Your task to perform on an android device: Open eBay Image 0: 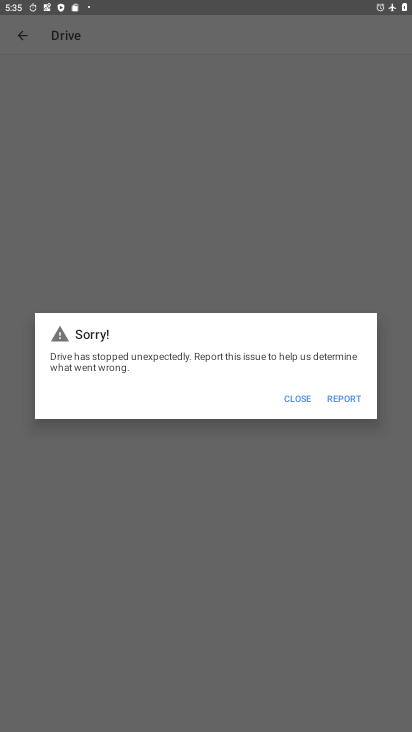
Step 0: press home button
Your task to perform on an android device: Open eBay Image 1: 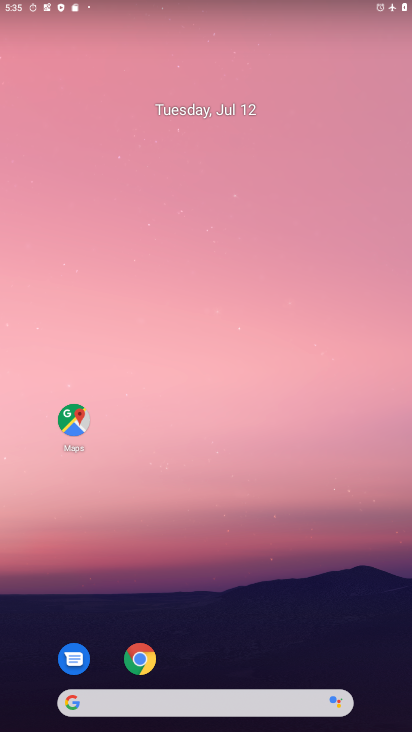
Step 1: click (133, 660)
Your task to perform on an android device: Open eBay Image 2: 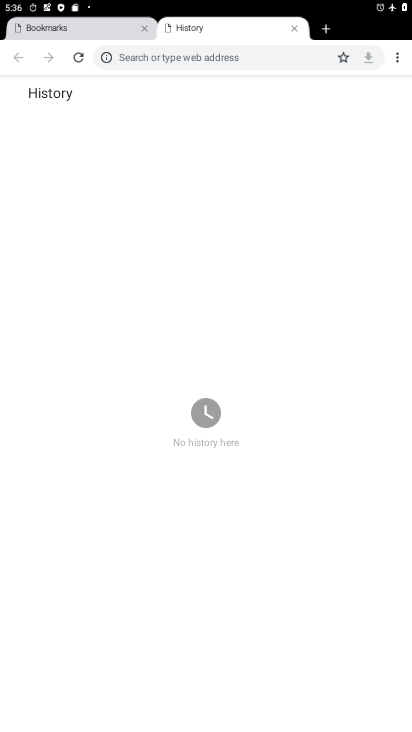
Step 2: click (297, 33)
Your task to perform on an android device: Open eBay Image 3: 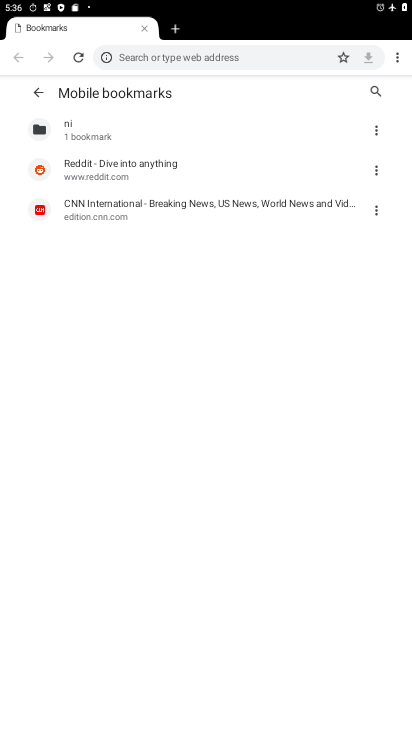
Step 3: click (175, 61)
Your task to perform on an android device: Open eBay Image 4: 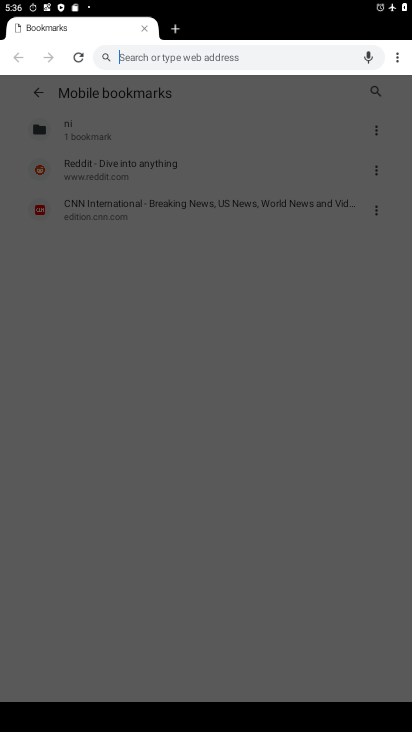
Step 4: type "www.ebay.com"
Your task to perform on an android device: Open eBay Image 5: 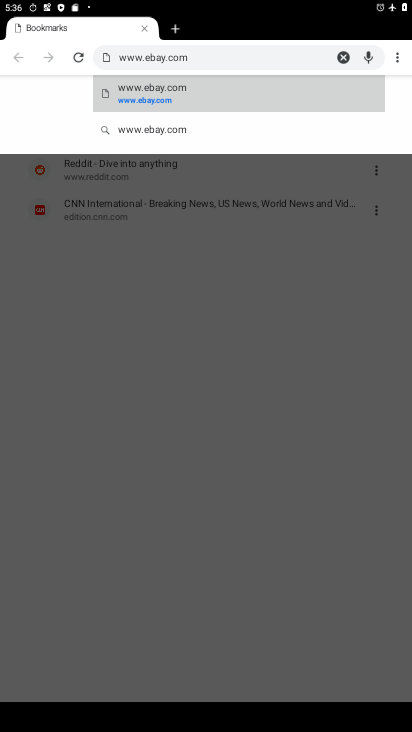
Step 5: click (141, 95)
Your task to perform on an android device: Open eBay Image 6: 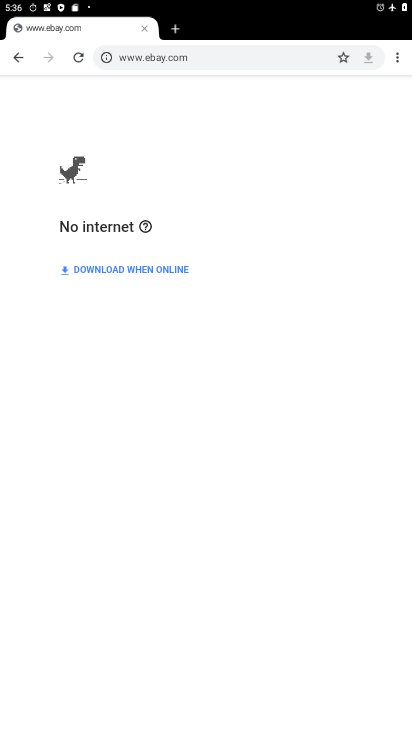
Step 6: press back button
Your task to perform on an android device: Open eBay Image 7: 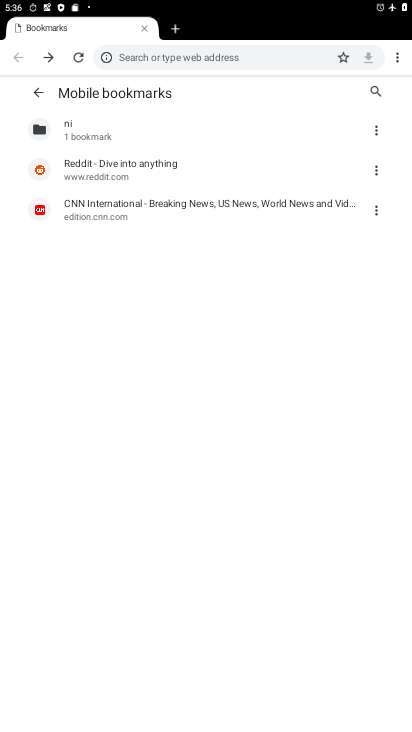
Step 7: press back button
Your task to perform on an android device: Open eBay Image 8: 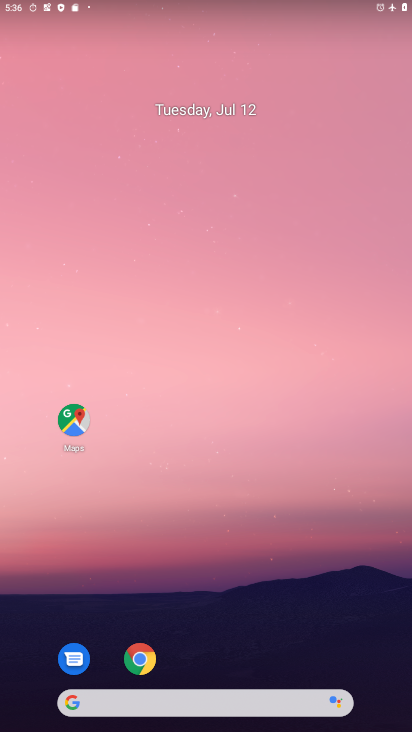
Step 8: drag from (193, 630) to (175, 291)
Your task to perform on an android device: Open eBay Image 9: 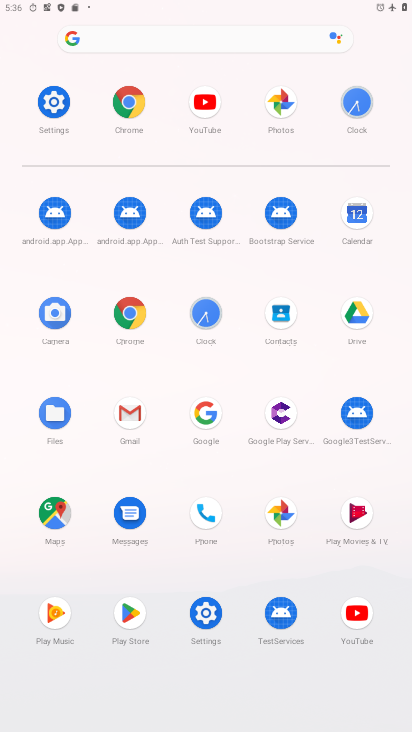
Step 9: click (53, 109)
Your task to perform on an android device: Open eBay Image 10: 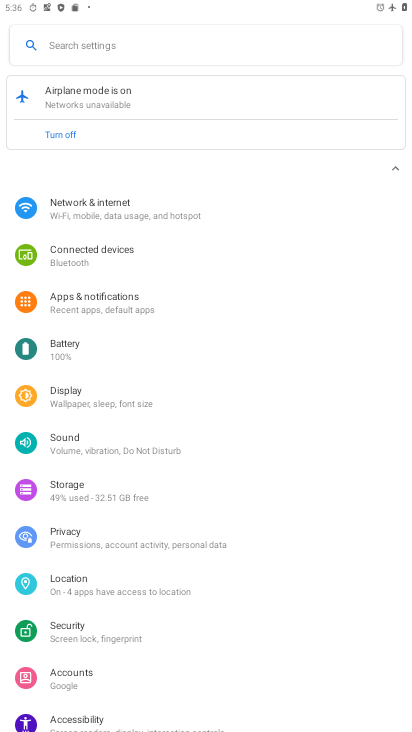
Step 10: click (216, 137)
Your task to perform on an android device: Open eBay Image 11: 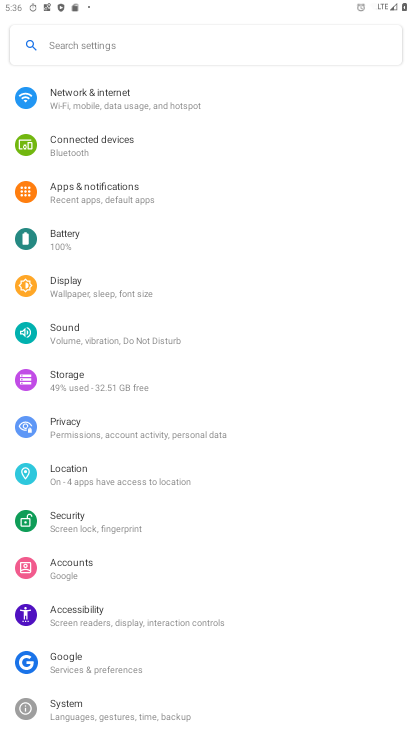
Step 11: press back button
Your task to perform on an android device: Open eBay Image 12: 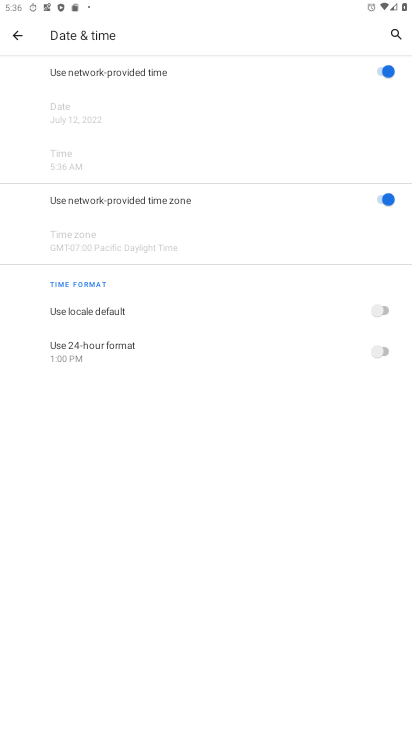
Step 12: press back button
Your task to perform on an android device: Open eBay Image 13: 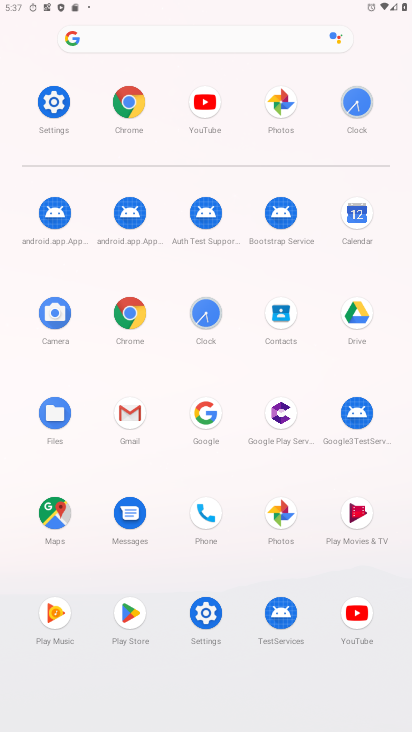
Step 13: click (119, 125)
Your task to perform on an android device: Open eBay Image 14: 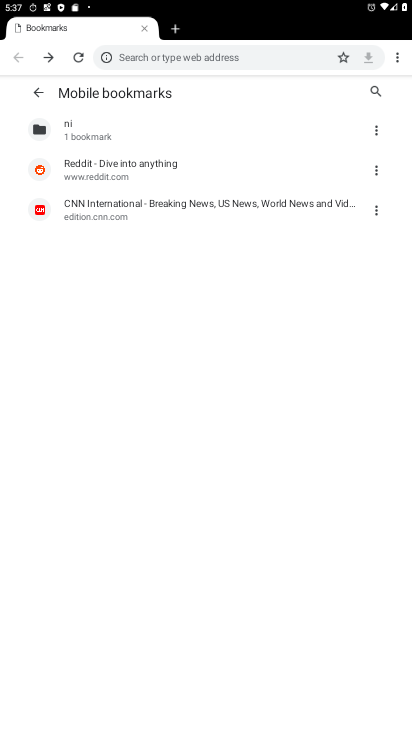
Step 14: click (189, 49)
Your task to perform on an android device: Open eBay Image 15: 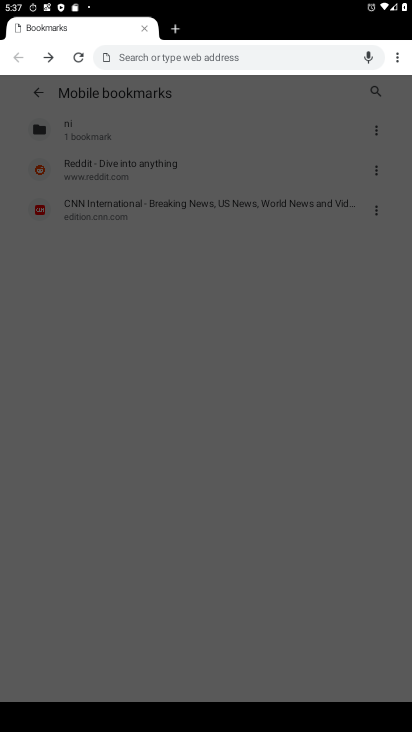
Step 15: type "www.ebay.com"
Your task to perform on an android device: Open eBay Image 16: 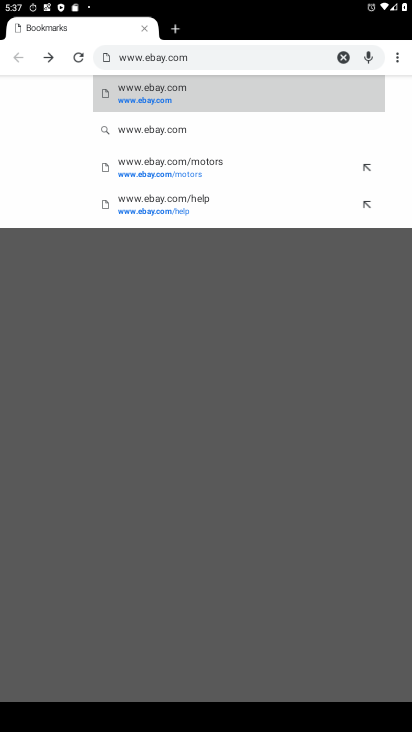
Step 16: click (146, 97)
Your task to perform on an android device: Open eBay Image 17: 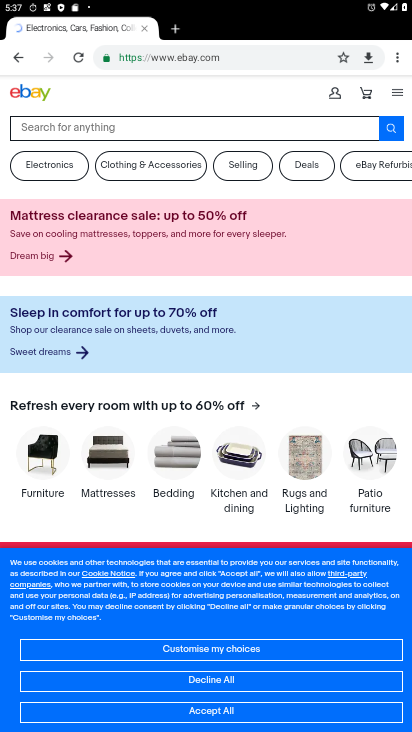
Step 17: task complete